Your task to perform on an android device: Do I have any events today? Image 0: 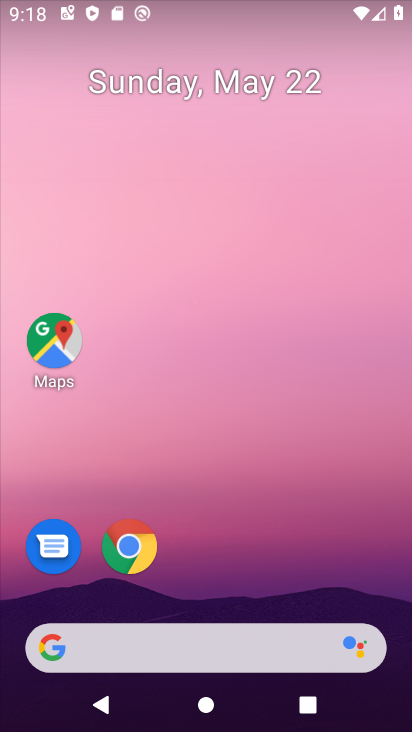
Step 0: drag from (209, 436) to (258, 91)
Your task to perform on an android device: Do I have any events today? Image 1: 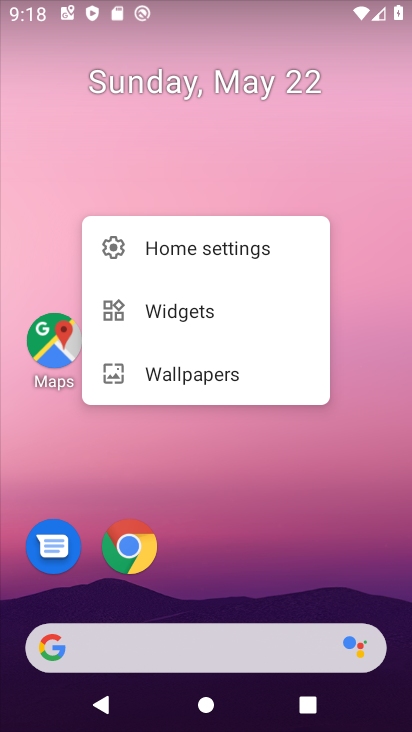
Step 1: click (257, 503)
Your task to perform on an android device: Do I have any events today? Image 2: 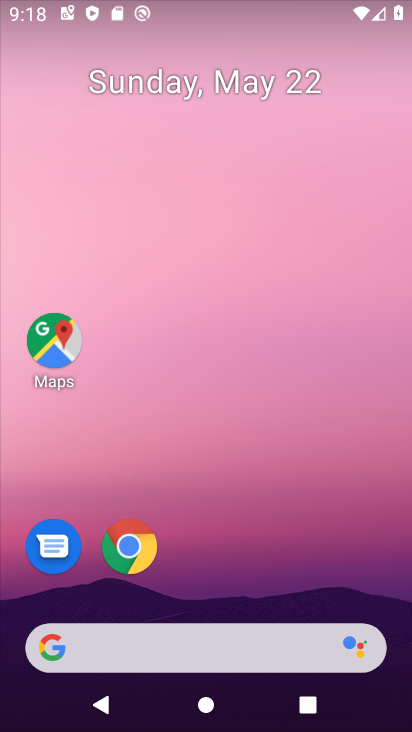
Step 2: drag from (298, 359) to (315, 4)
Your task to perform on an android device: Do I have any events today? Image 3: 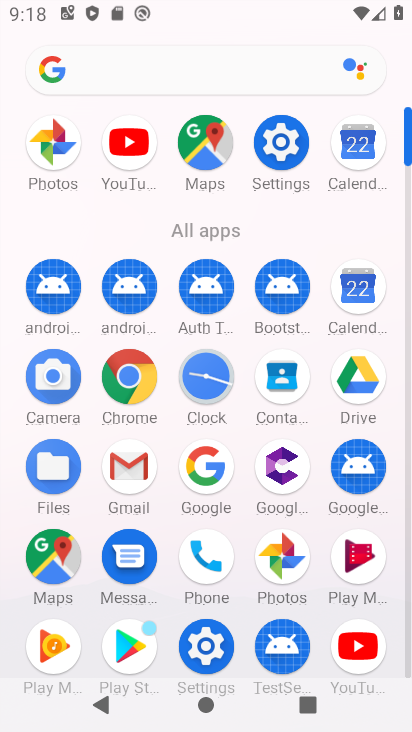
Step 3: click (364, 291)
Your task to perform on an android device: Do I have any events today? Image 4: 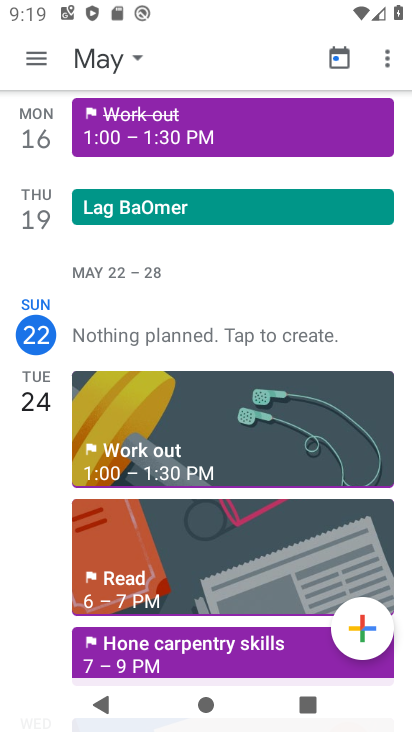
Step 4: click (164, 621)
Your task to perform on an android device: Do I have any events today? Image 5: 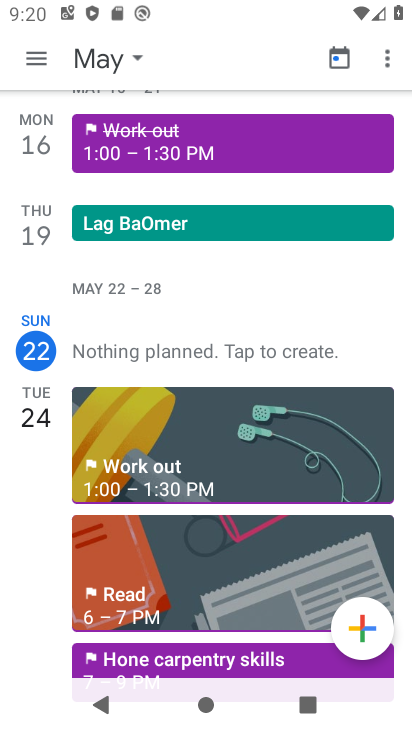
Step 5: task complete